Your task to perform on an android device: Open ESPN.com Image 0: 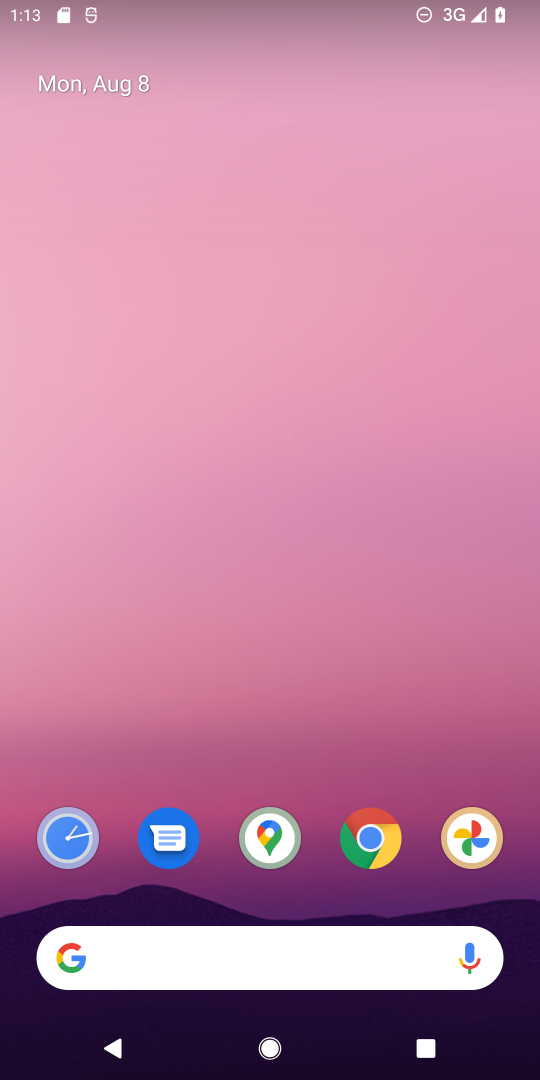
Step 0: press home button
Your task to perform on an android device: Open ESPN.com Image 1: 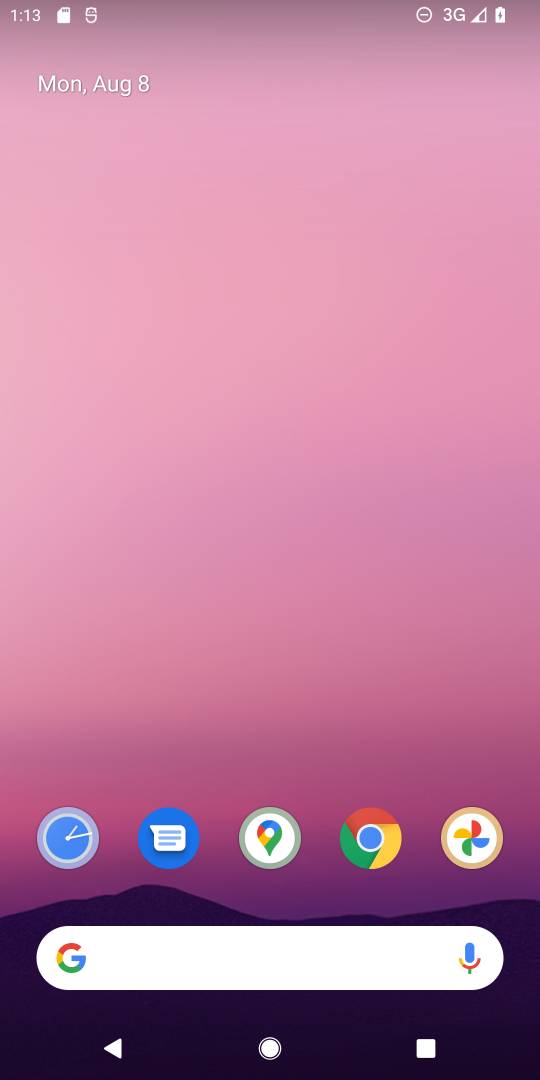
Step 1: click (73, 959)
Your task to perform on an android device: Open ESPN.com Image 2: 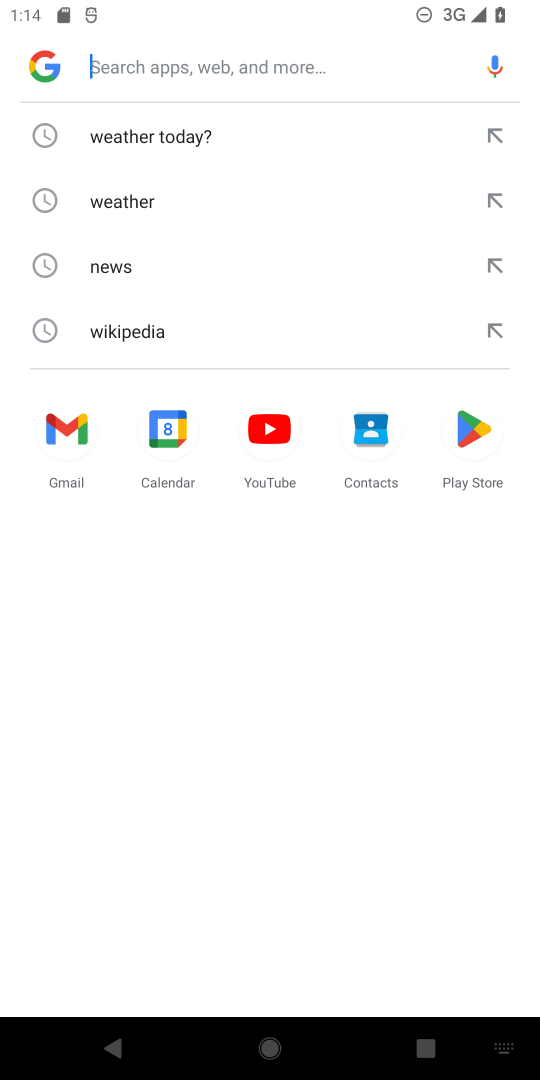
Step 2: type "ESPN.com"
Your task to perform on an android device: Open ESPN.com Image 3: 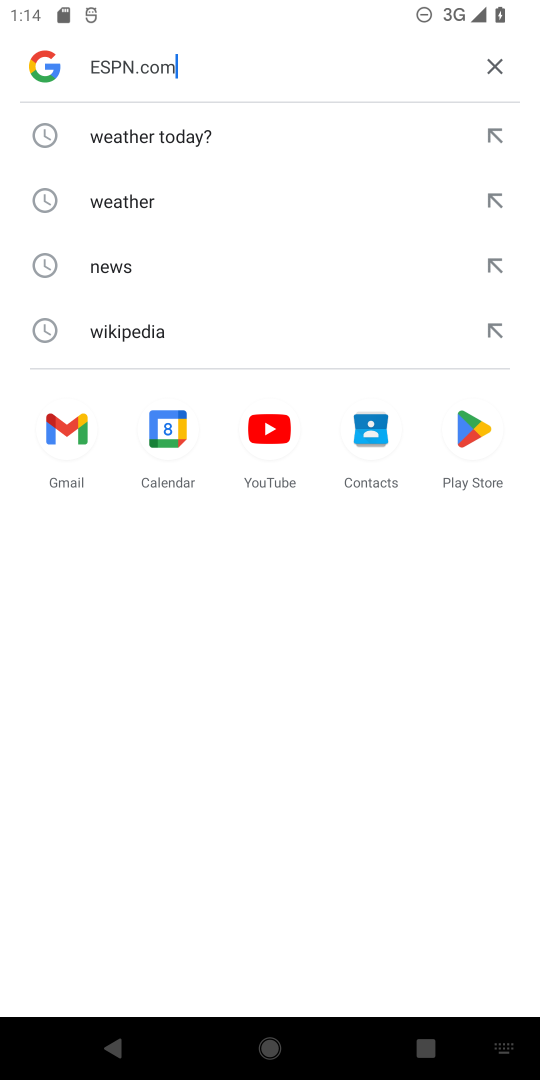
Step 3: press enter
Your task to perform on an android device: Open ESPN.com Image 4: 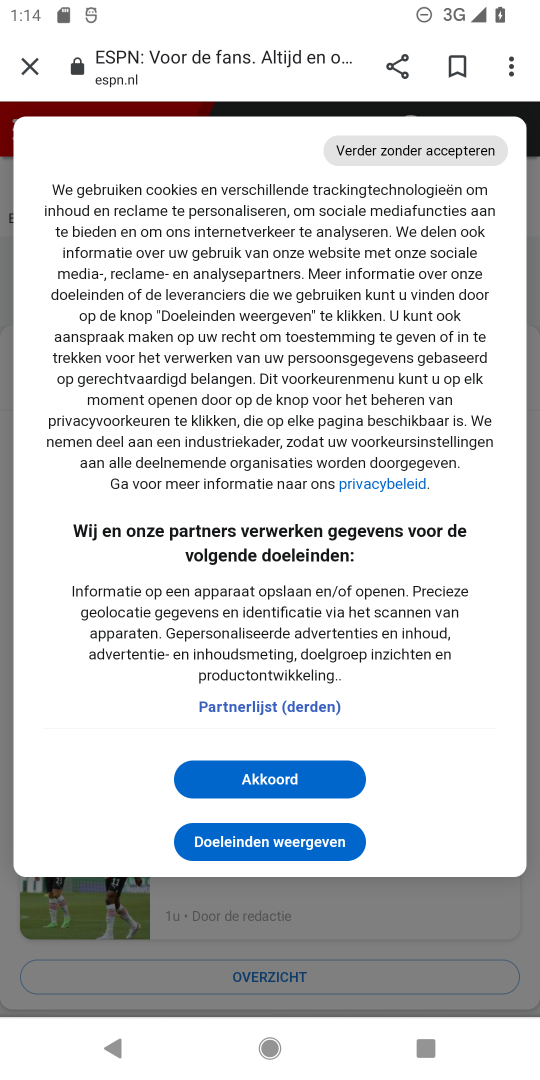
Step 4: click (302, 784)
Your task to perform on an android device: Open ESPN.com Image 5: 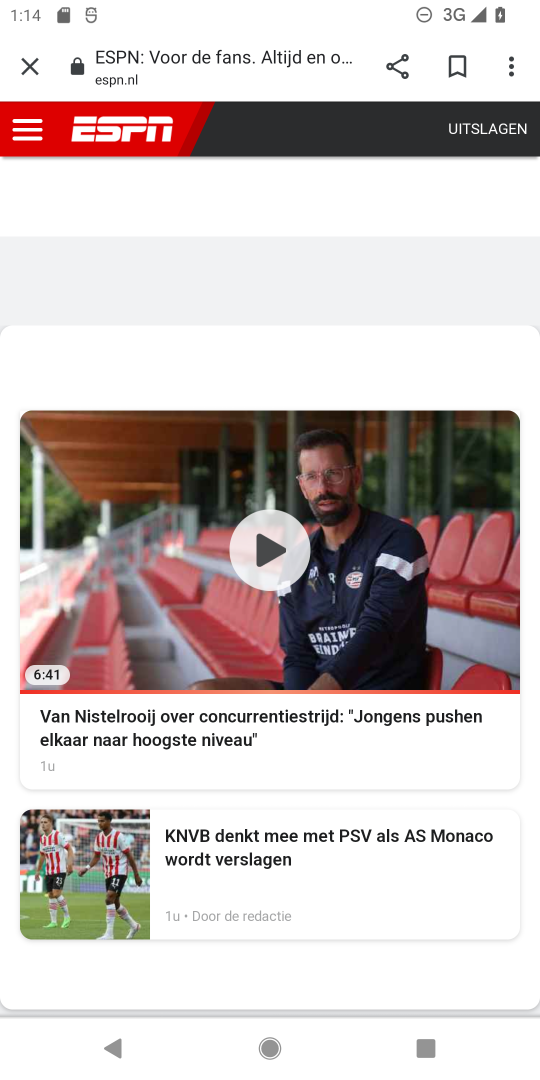
Step 5: task complete